Your task to perform on an android device: change alarm snooze length Image 0: 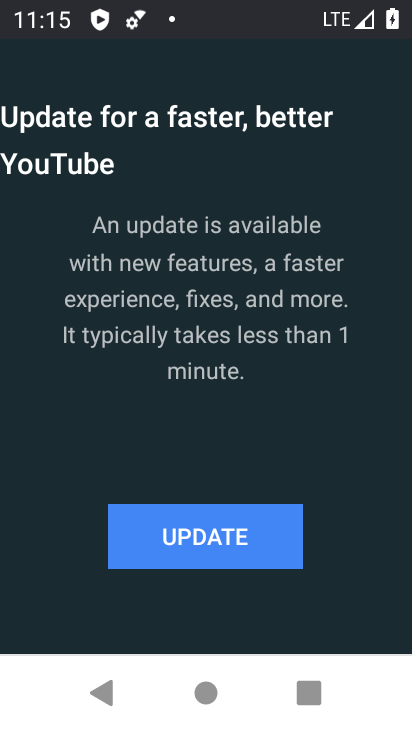
Step 0: press home button
Your task to perform on an android device: change alarm snooze length Image 1: 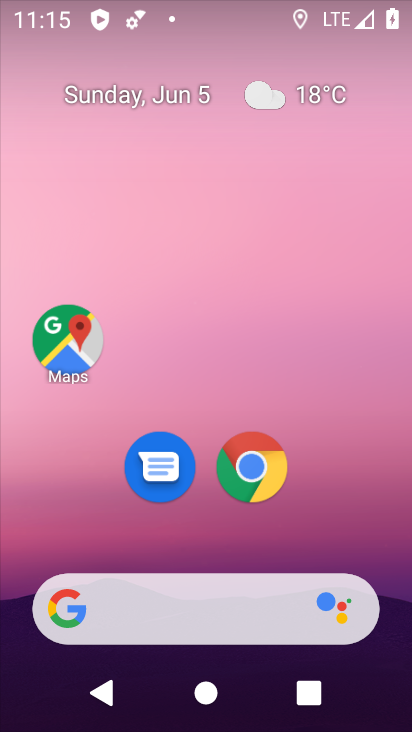
Step 1: drag from (221, 565) to (162, 33)
Your task to perform on an android device: change alarm snooze length Image 2: 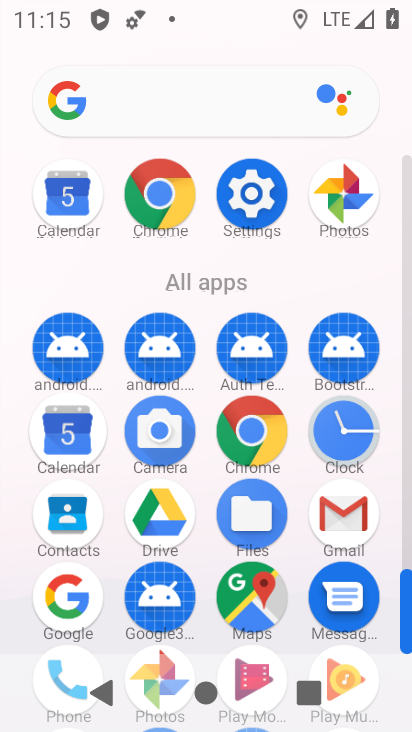
Step 2: click (332, 431)
Your task to perform on an android device: change alarm snooze length Image 3: 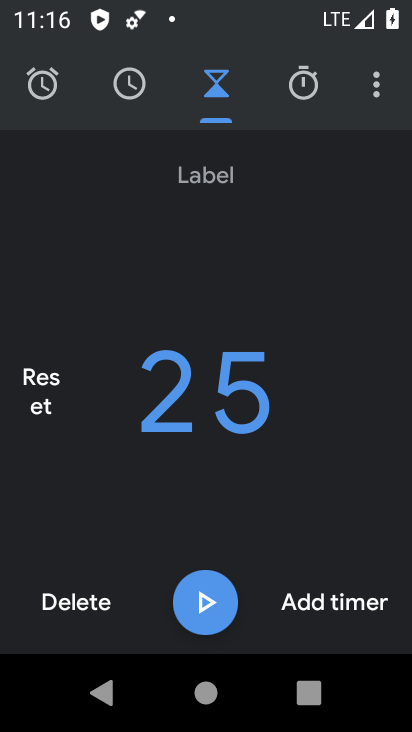
Step 3: click (371, 87)
Your task to perform on an android device: change alarm snooze length Image 4: 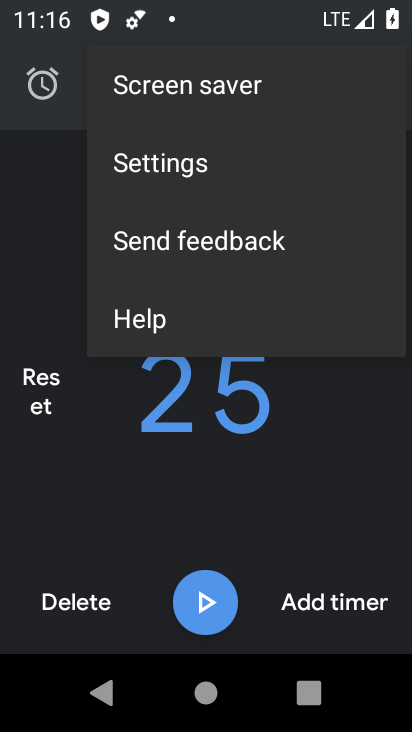
Step 4: click (185, 179)
Your task to perform on an android device: change alarm snooze length Image 5: 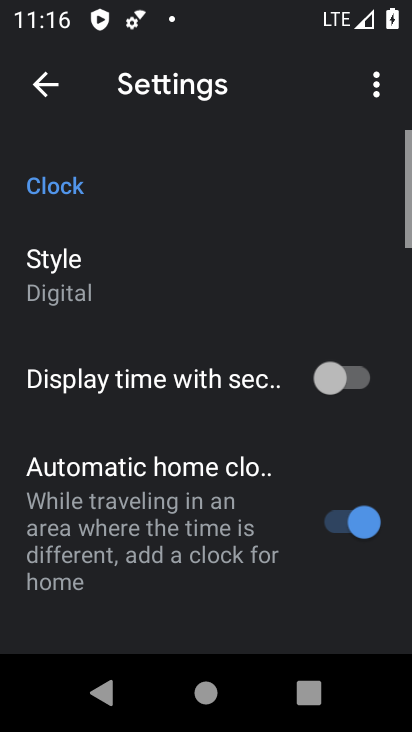
Step 5: drag from (123, 585) to (41, 27)
Your task to perform on an android device: change alarm snooze length Image 6: 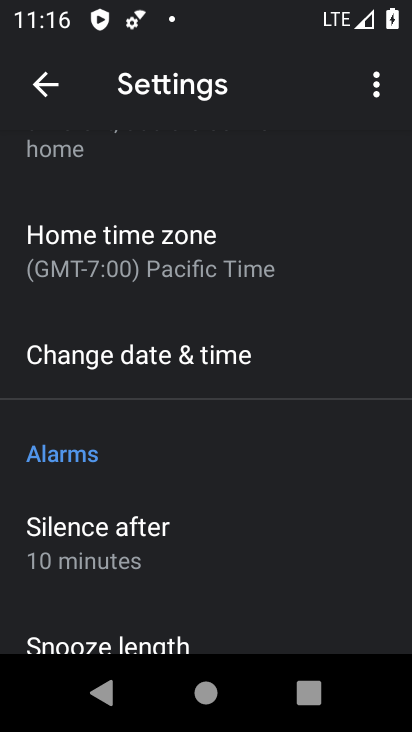
Step 6: drag from (143, 469) to (66, 181)
Your task to perform on an android device: change alarm snooze length Image 7: 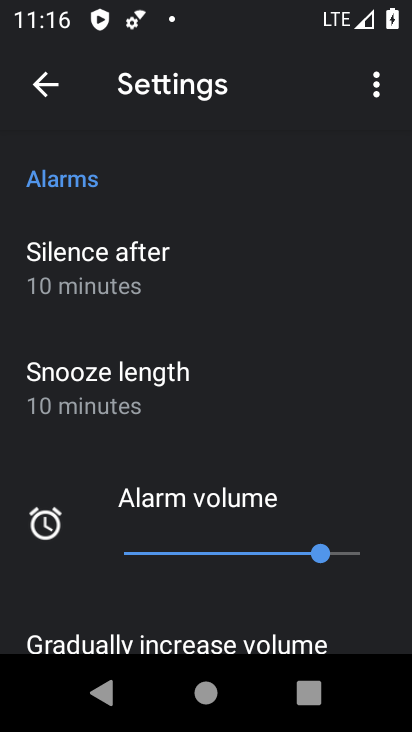
Step 7: click (156, 417)
Your task to perform on an android device: change alarm snooze length Image 8: 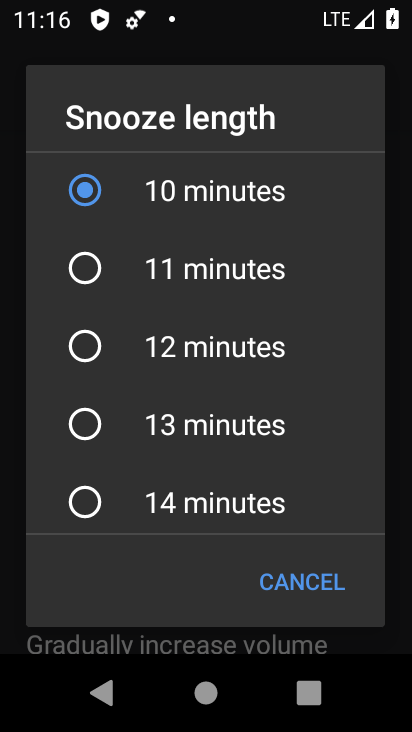
Step 8: click (160, 405)
Your task to perform on an android device: change alarm snooze length Image 9: 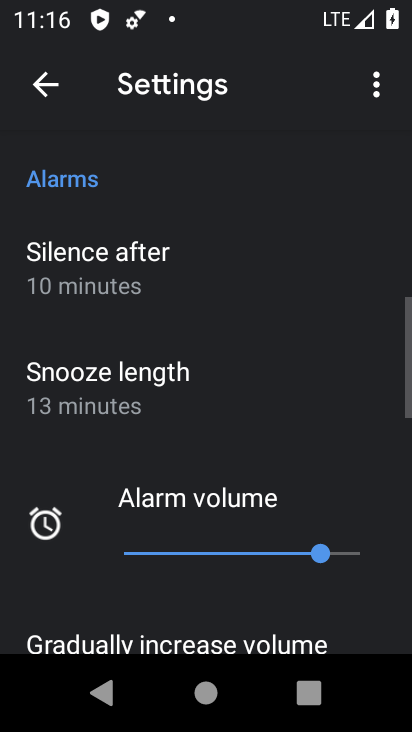
Step 9: task complete